Your task to perform on an android device: Do I have any events tomorrow? Image 0: 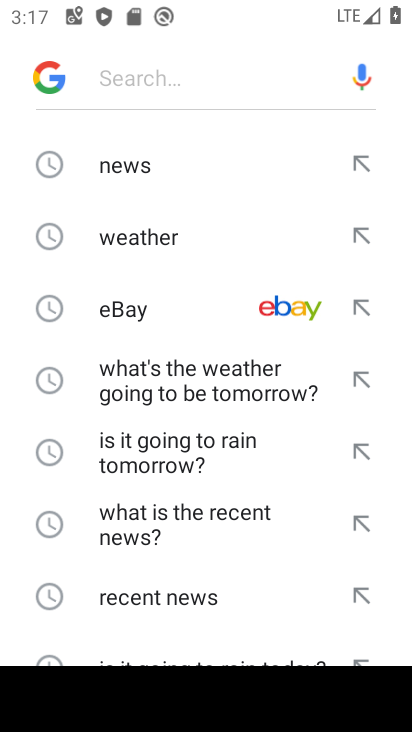
Step 0: press home button
Your task to perform on an android device: Do I have any events tomorrow? Image 1: 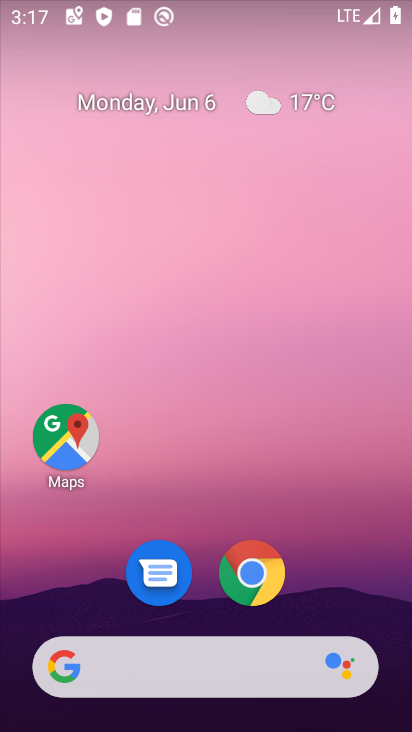
Step 1: drag from (358, 582) to (361, 207)
Your task to perform on an android device: Do I have any events tomorrow? Image 2: 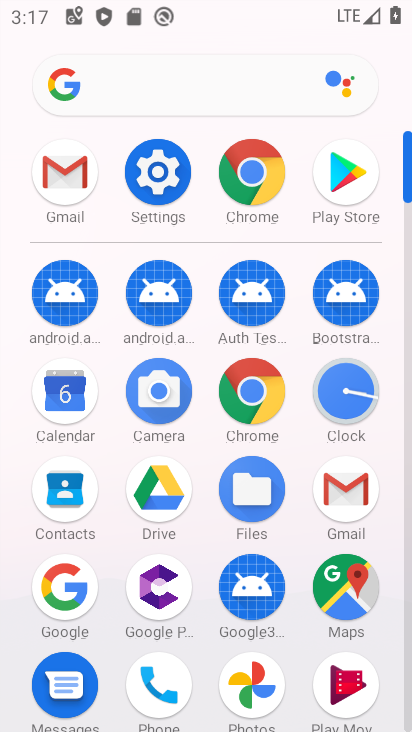
Step 2: click (69, 411)
Your task to perform on an android device: Do I have any events tomorrow? Image 3: 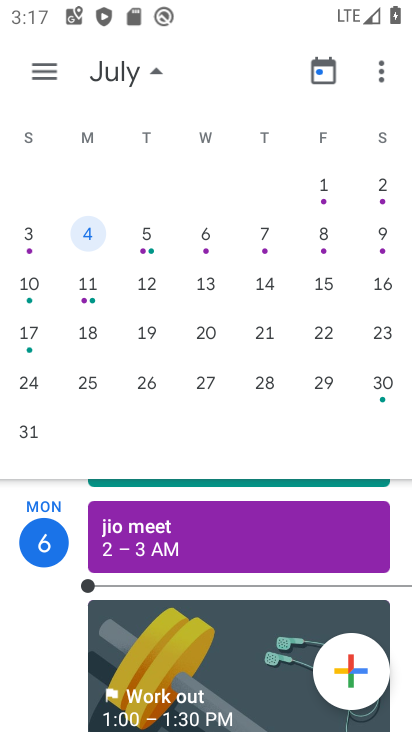
Step 3: drag from (202, 561) to (203, 494)
Your task to perform on an android device: Do I have any events tomorrow? Image 4: 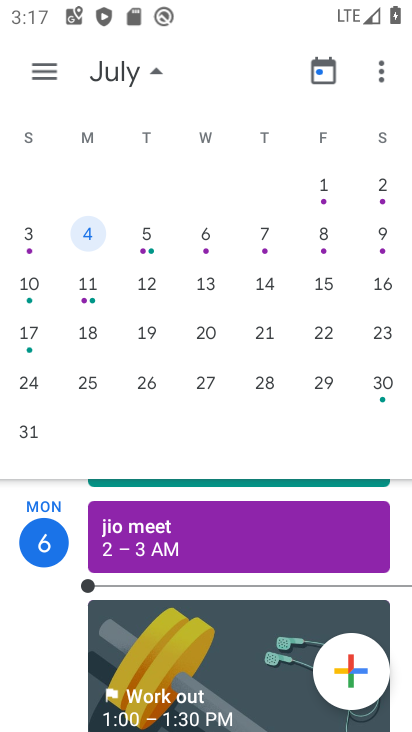
Step 4: drag from (205, 575) to (225, 261)
Your task to perform on an android device: Do I have any events tomorrow? Image 5: 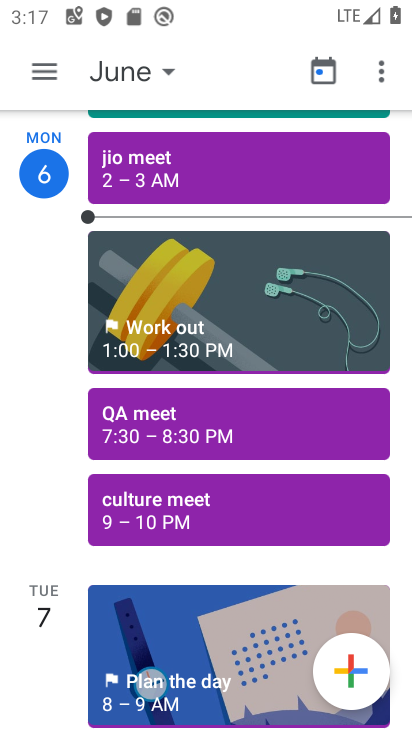
Step 5: drag from (216, 648) to (224, 311)
Your task to perform on an android device: Do I have any events tomorrow? Image 6: 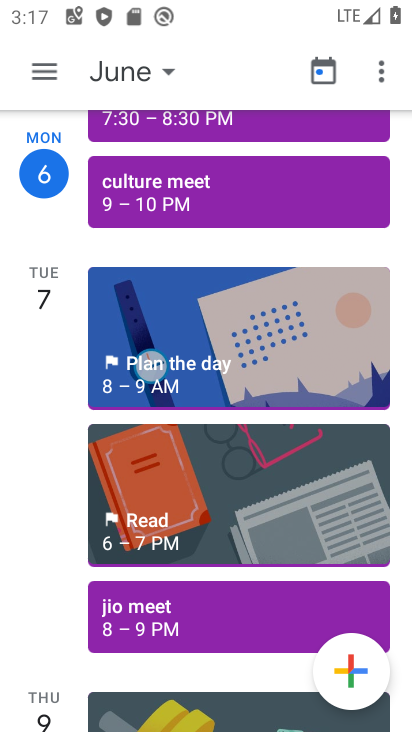
Step 6: click (196, 625)
Your task to perform on an android device: Do I have any events tomorrow? Image 7: 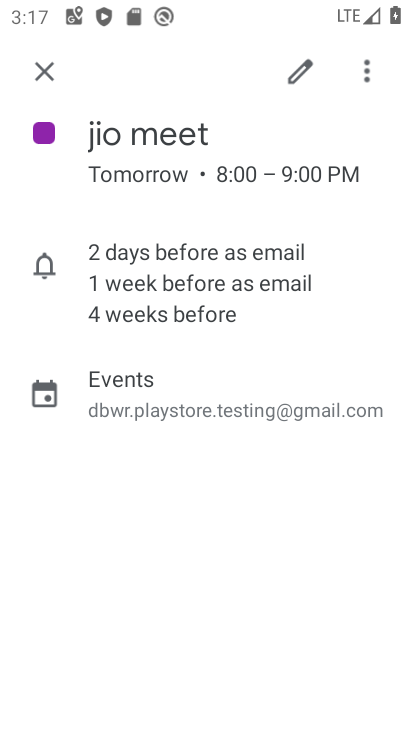
Step 7: task complete